Your task to perform on an android device: Open Wikipedia Image 0: 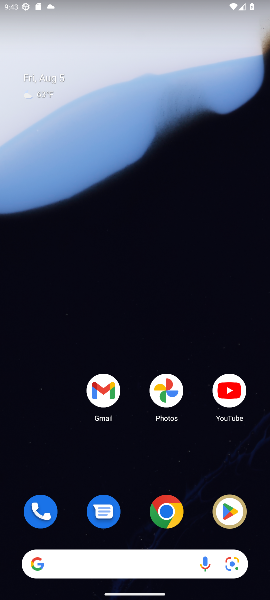
Step 0: click (166, 512)
Your task to perform on an android device: Open Wikipedia Image 1: 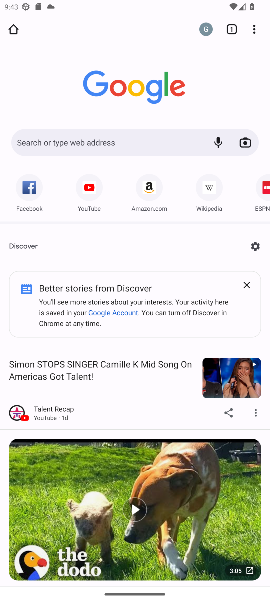
Step 1: click (146, 141)
Your task to perform on an android device: Open Wikipedia Image 2: 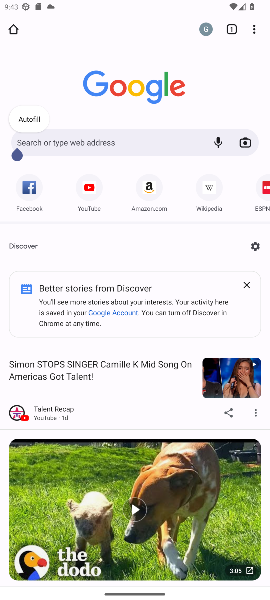
Step 2: click (118, 141)
Your task to perform on an android device: Open Wikipedia Image 3: 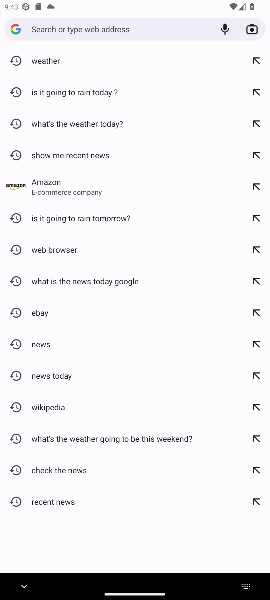
Step 3: click (56, 409)
Your task to perform on an android device: Open Wikipedia Image 4: 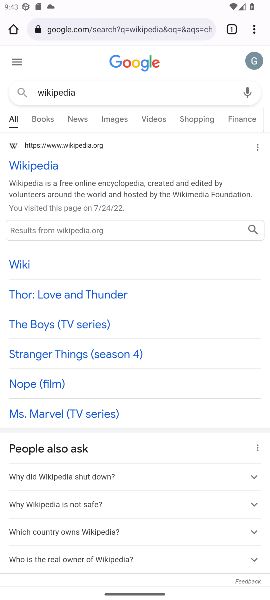
Step 4: click (50, 167)
Your task to perform on an android device: Open Wikipedia Image 5: 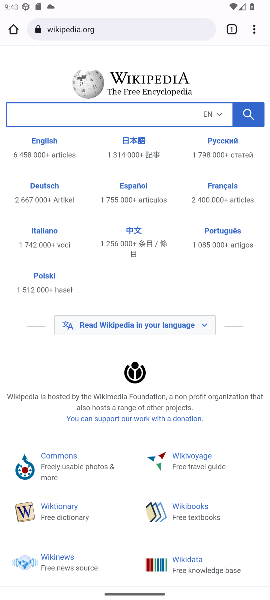
Step 5: task complete